Your task to perform on an android device: toggle notification dots Image 0: 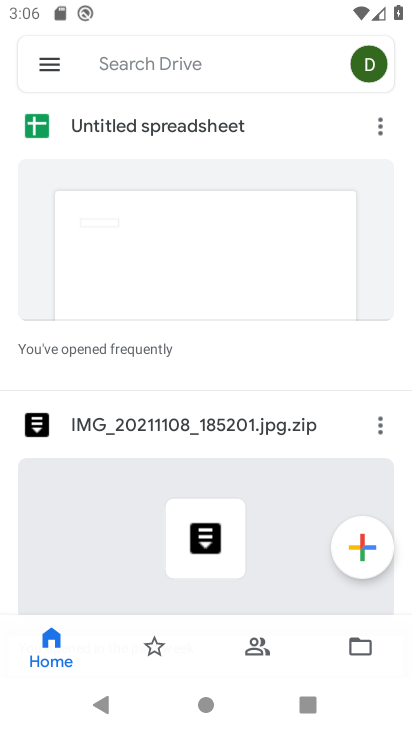
Step 0: press home button
Your task to perform on an android device: toggle notification dots Image 1: 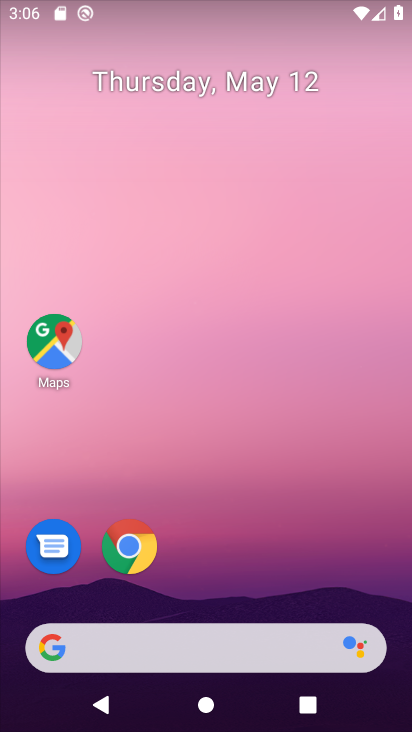
Step 1: drag from (279, 538) to (301, 184)
Your task to perform on an android device: toggle notification dots Image 2: 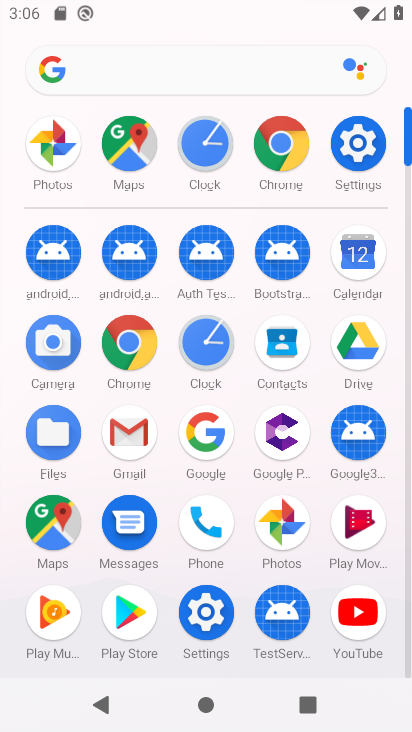
Step 2: click (367, 136)
Your task to perform on an android device: toggle notification dots Image 3: 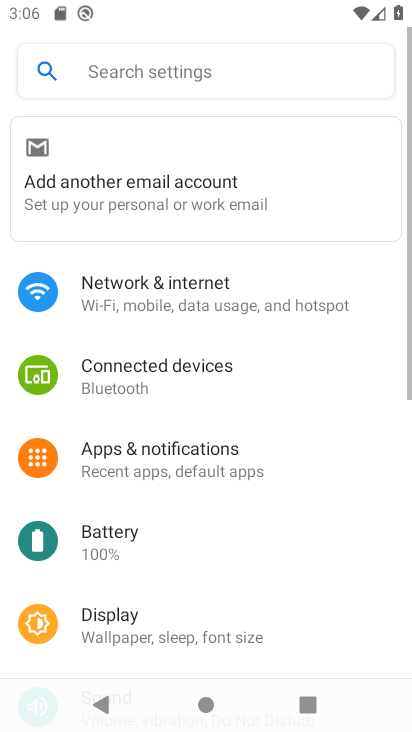
Step 3: click (190, 73)
Your task to perform on an android device: toggle notification dots Image 4: 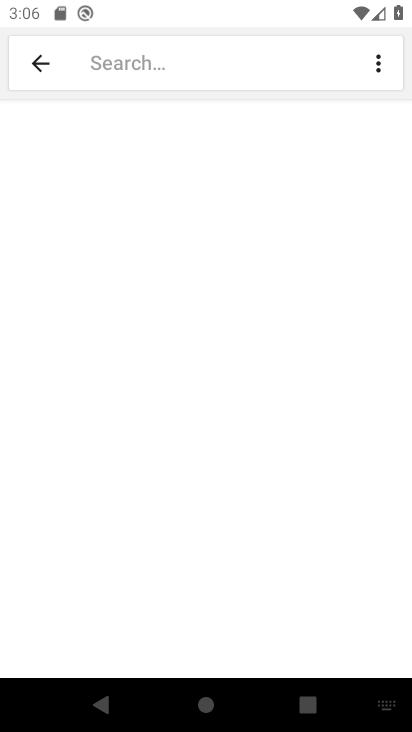
Step 4: click (107, 47)
Your task to perform on an android device: toggle notification dots Image 5: 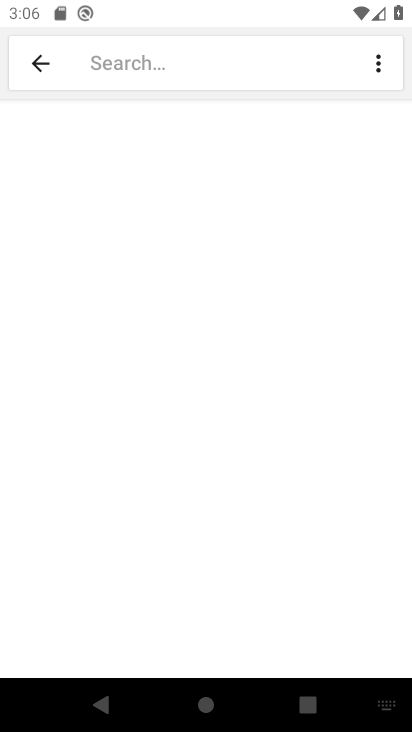
Step 5: type "notification dots"
Your task to perform on an android device: toggle notification dots Image 6: 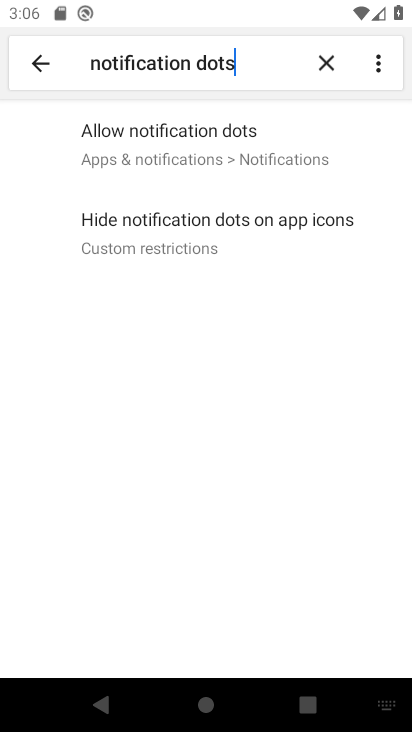
Step 6: click (215, 155)
Your task to perform on an android device: toggle notification dots Image 7: 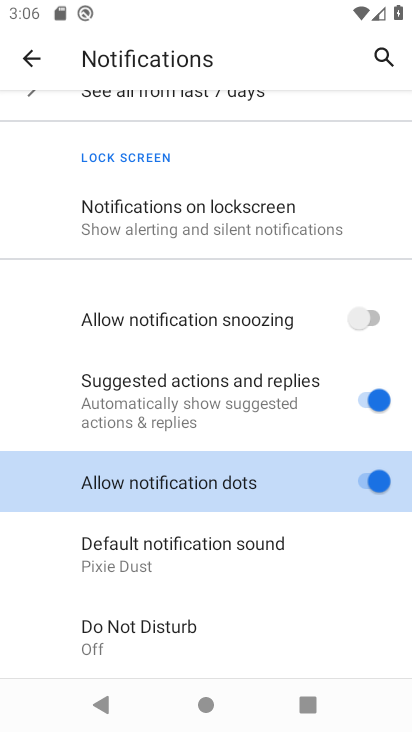
Step 7: click (371, 456)
Your task to perform on an android device: toggle notification dots Image 8: 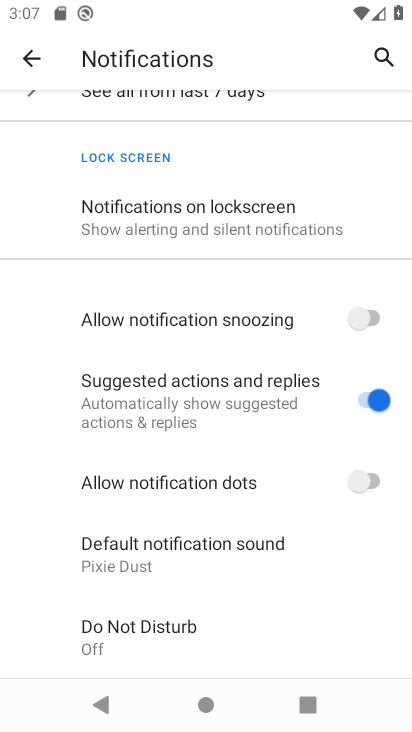
Step 8: task complete